Your task to perform on an android device: turn on improve location accuracy Image 0: 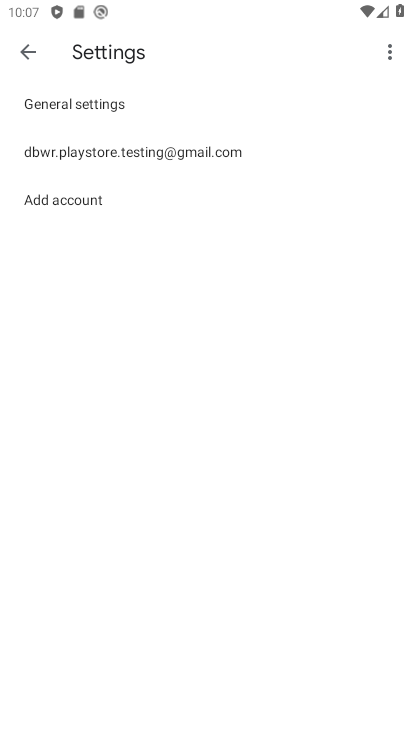
Step 0: press back button
Your task to perform on an android device: turn on improve location accuracy Image 1: 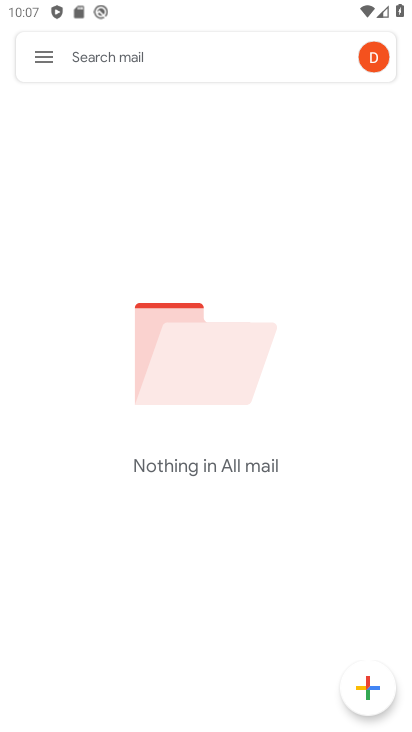
Step 1: click (41, 54)
Your task to perform on an android device: turn on improve location accuracy Image 2: 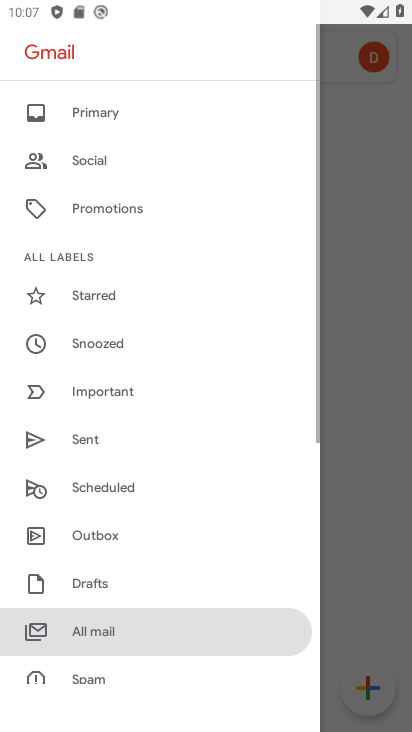
Step 2: drag from (106, 641) to (248, 48)
Your task to perform on an android device: turn on improve location accuracy Image 3: 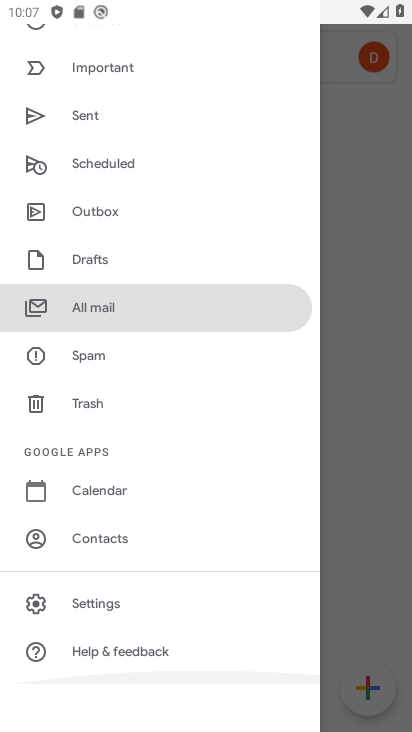
Step 3: drag from (196, 164) to (161, 569)
Your task to perform on an android device: turn on improve location accuracy Image 4: 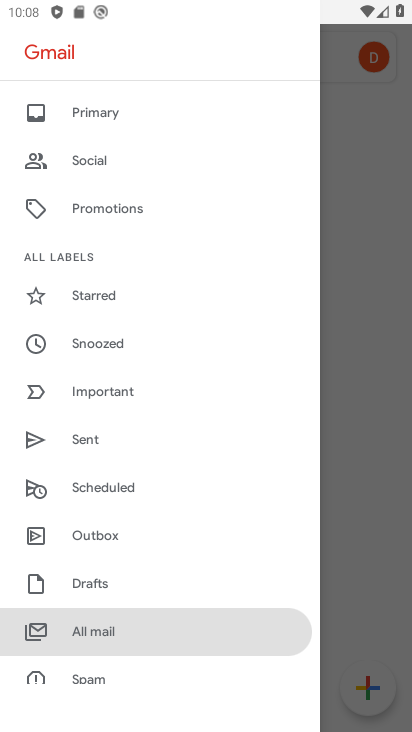
Step 4: press back button
Your task to perform on an android device: turn on improve location accuracy Image 5: 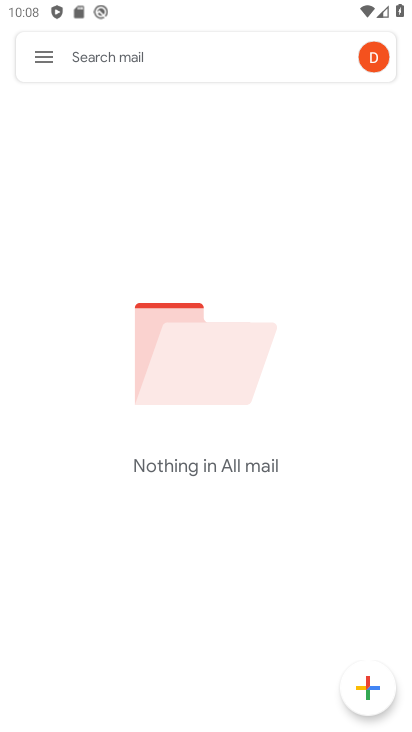
Step 5: press home button
Your task to perform on an android device: turn on improve location accuracy Image 6: 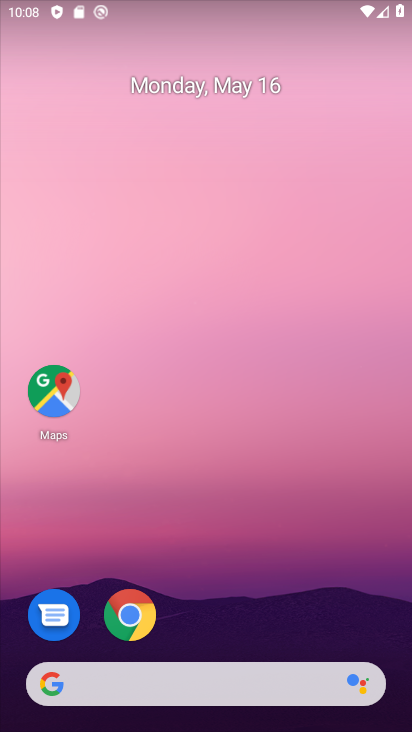
Step 6: drag from (204, 564) to (277, 108)
Your task to perform on an android device: turn on improve location accuracy Image 7: 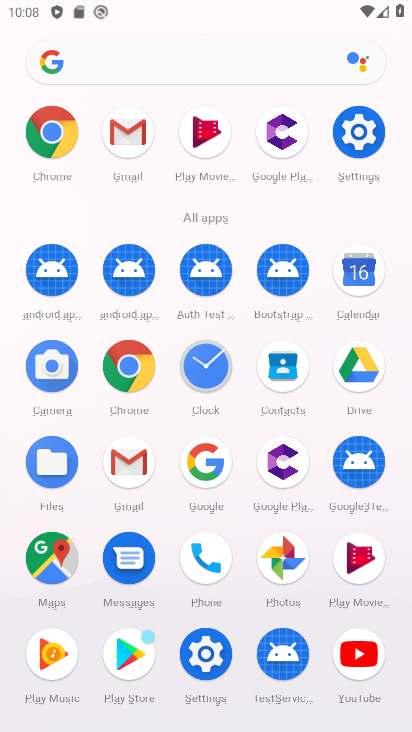
Step 7: click (361, 139)
Your task to perform on an android device: turn on improve location accuracy Image 8: 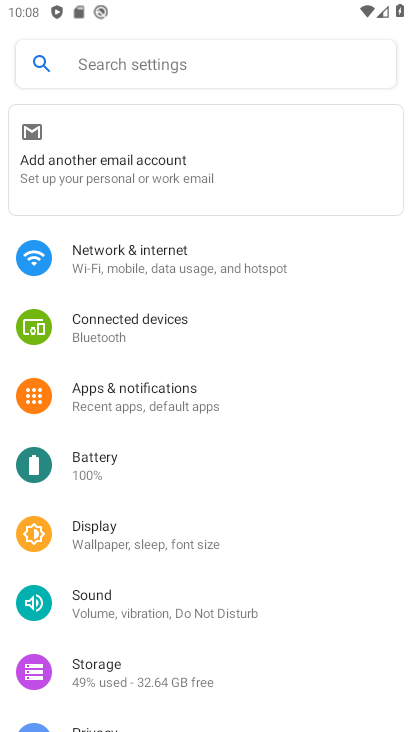
Step 8: drag from (248, 668) to (297, 159)
Your task to perform on an android device: turn on improve location accuracy Image 9: 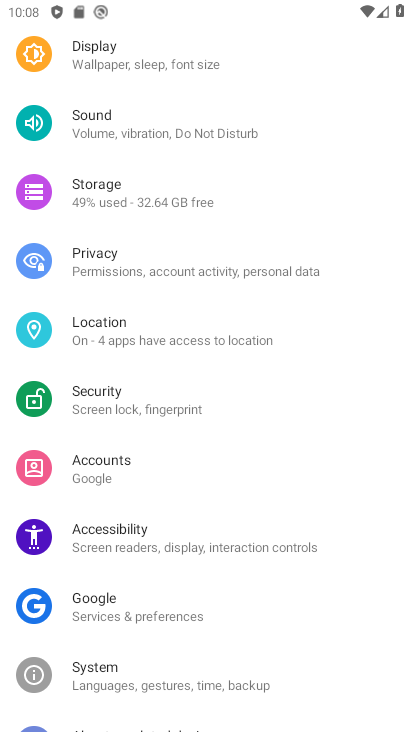
Step 9: click (116, 331)
Your task to perform on an android device: turn on improve location accuracy Image 10: 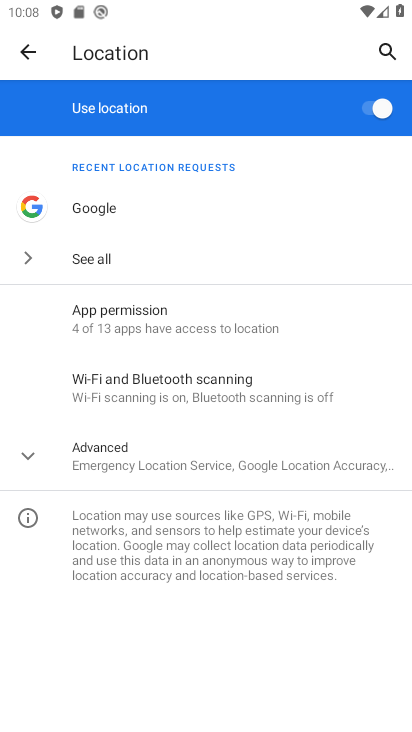
Step 10: click (125, 450)
Your task to perform on an android device: turn on improve location accuracy Image 11: 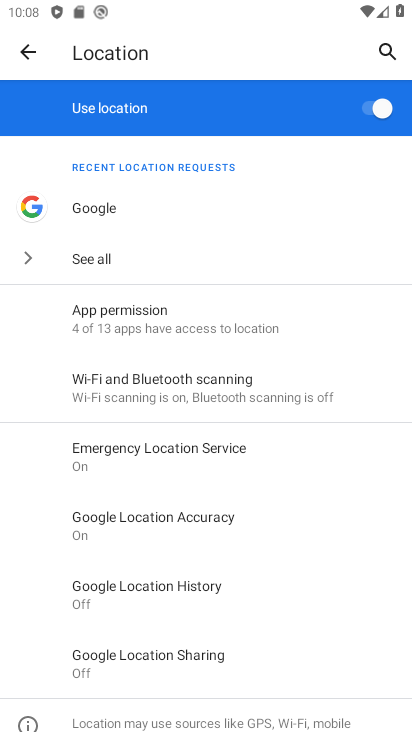
Step 11: click (176, 526)
Your task to perform on an android device: turn on improve location accuracy Image 12: 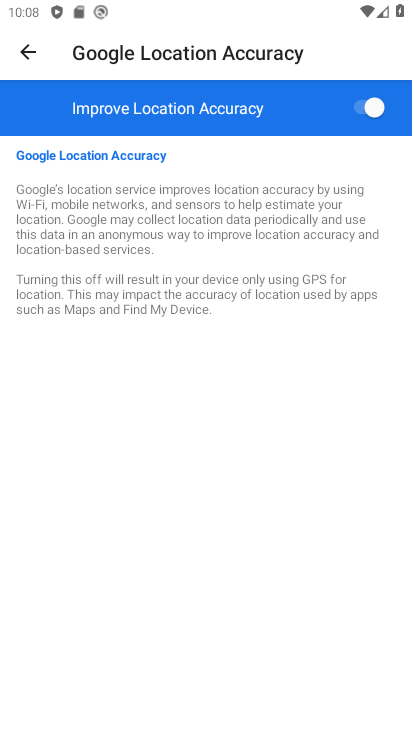
Step 12: task complete